Your task to perform on an android device: Check out the new nike air max 2020. Image 0: 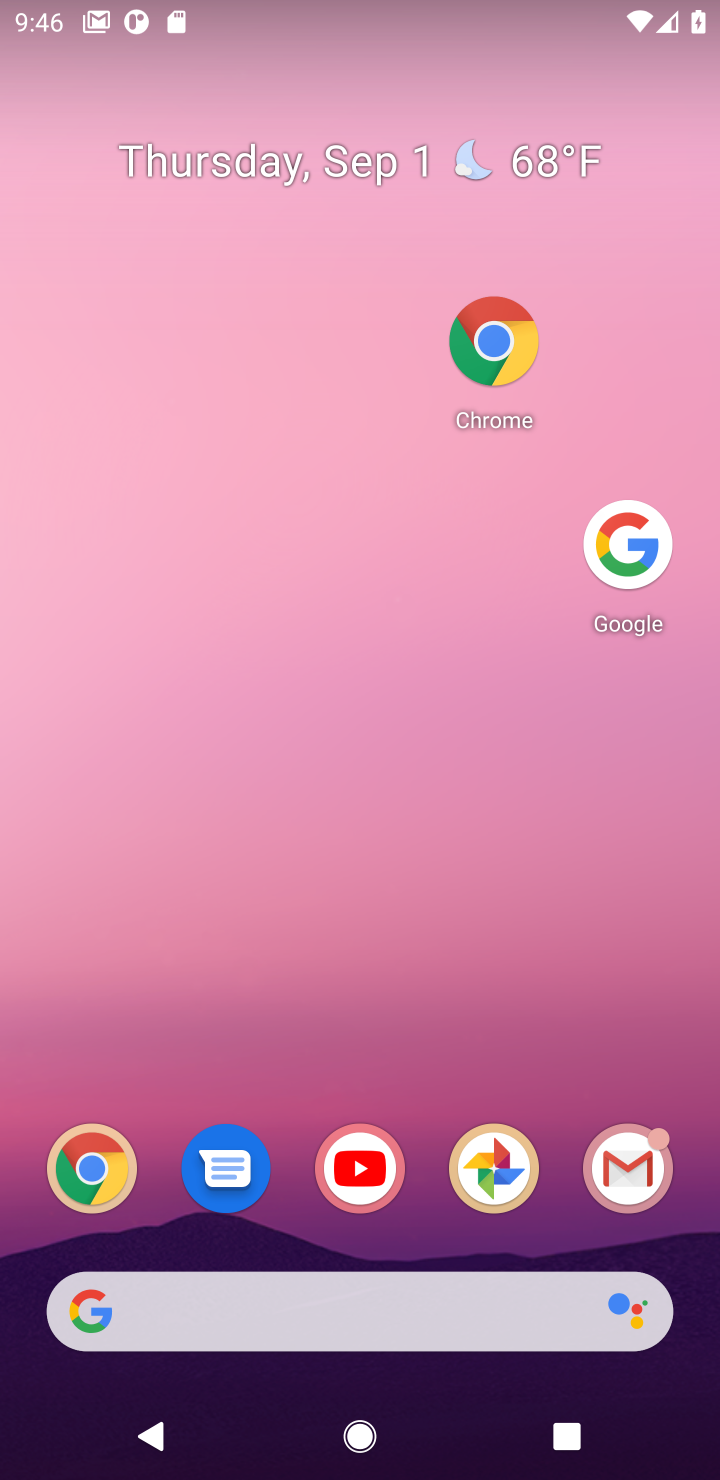
Step 0: drag from (409, 1245) to (407, 744)
Your task to perform on an android device: Check out the new nike air max 2020. Image 1: 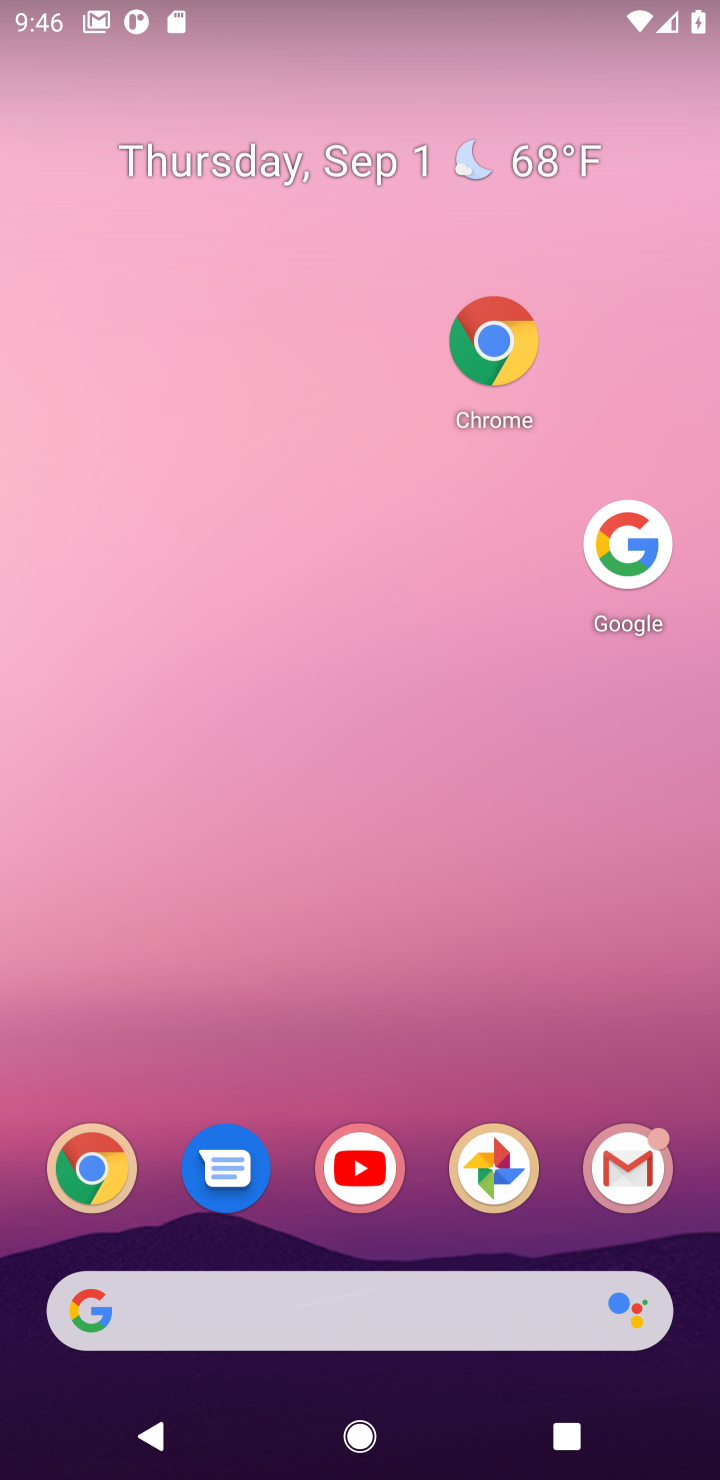
Step 1: click (612, 520)
Your task to perform on an android device: Check out the new nike air max 2020. Image 2: 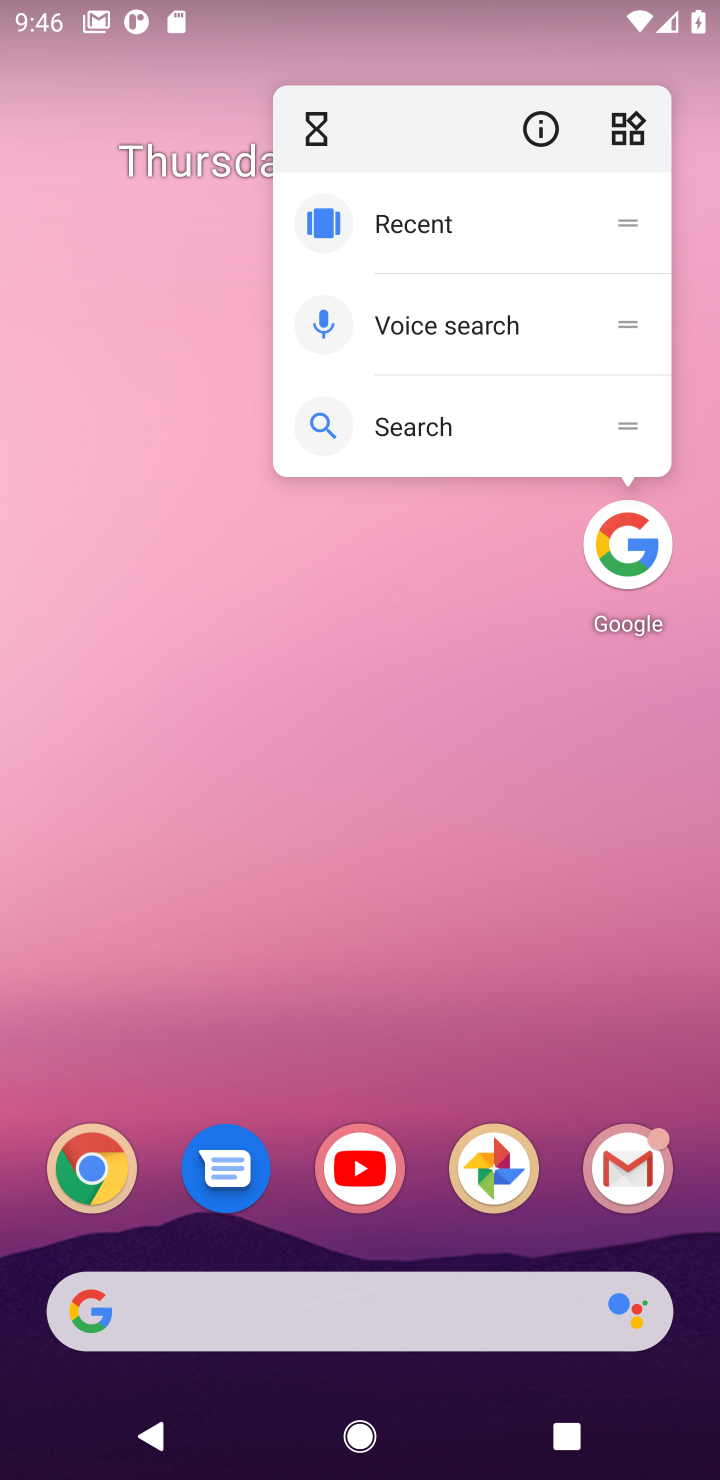
Step 2: click (626, 515)
Your task to perform on an android device: Check out the new nike air max 2020. Image 3: 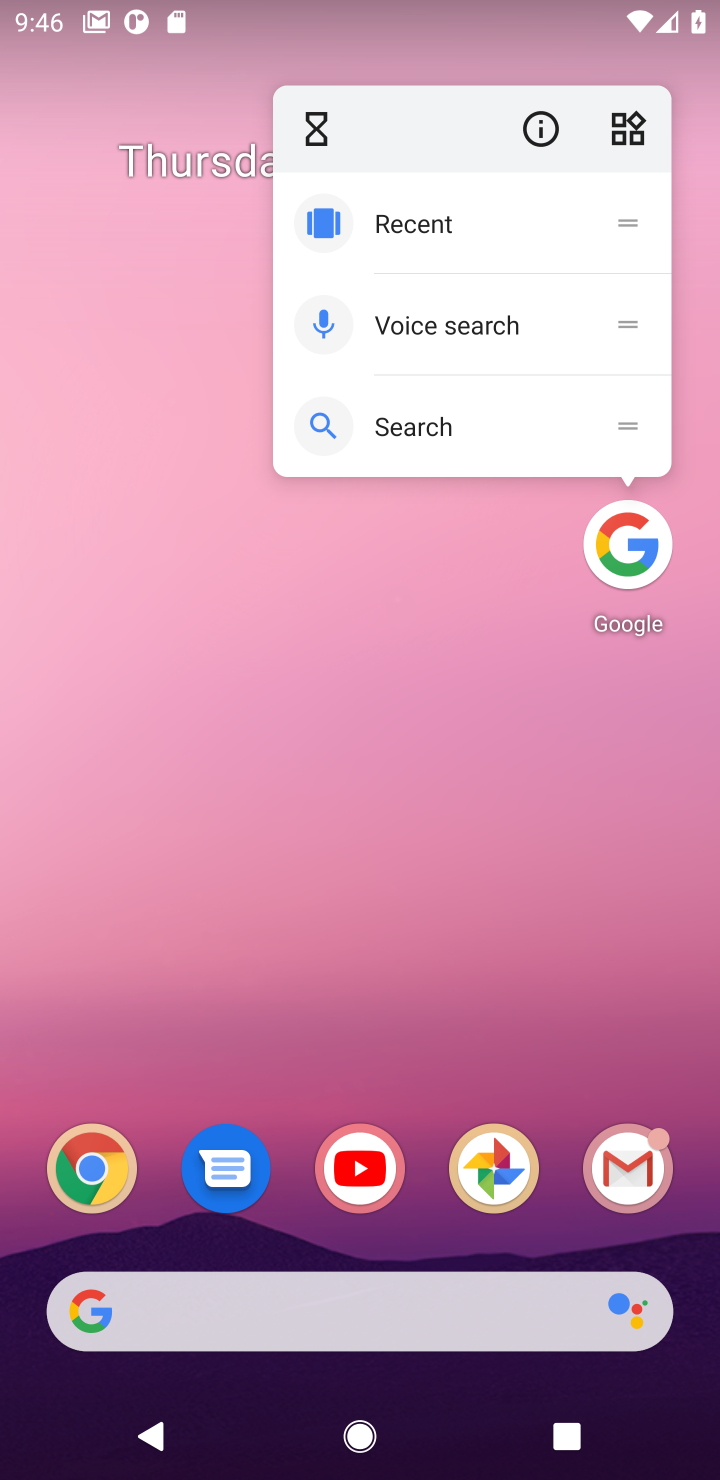
Step 3: click (626, 540)
Your task to perform on an android device: Check out the new nike air max 2020. Image 4: 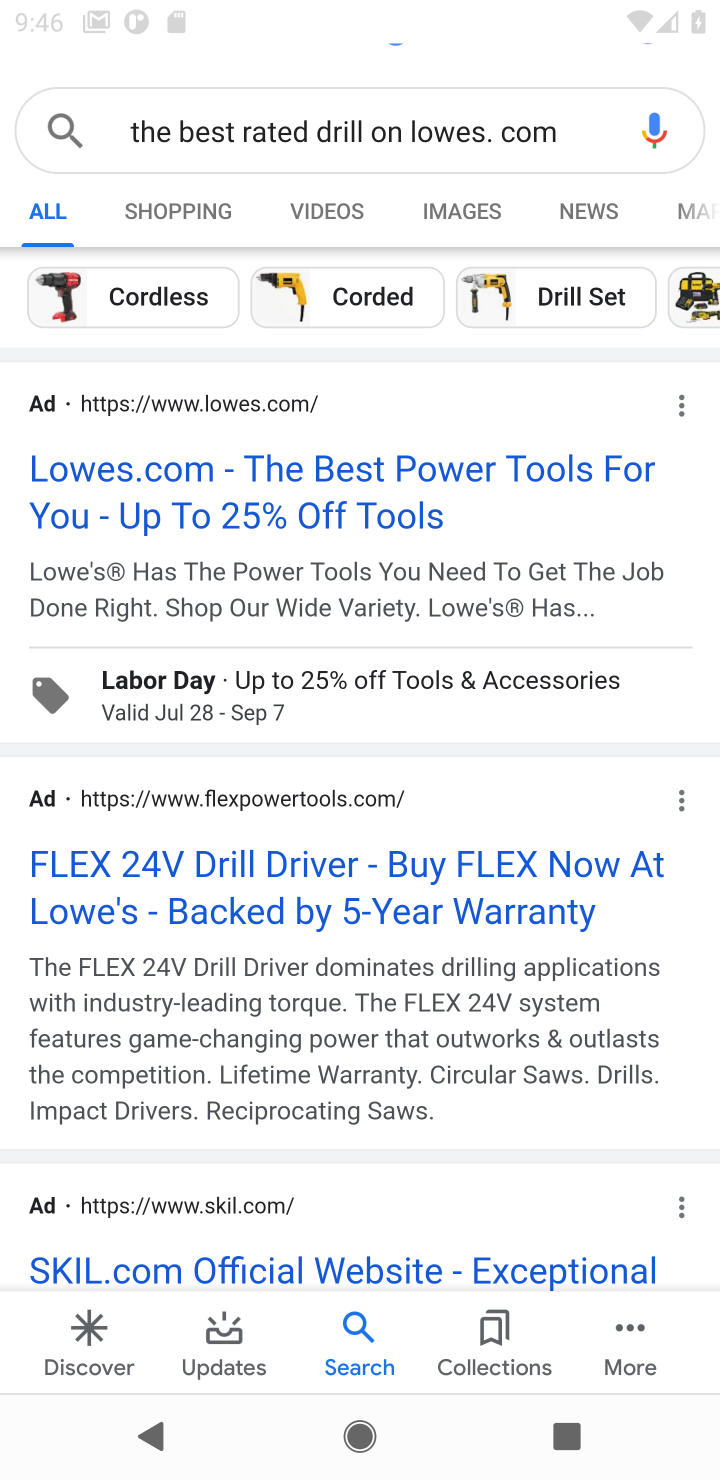
Step 4: click (623, 560)
Your task to perform on an android device: Check out the new nike air max 2020. Image 5: 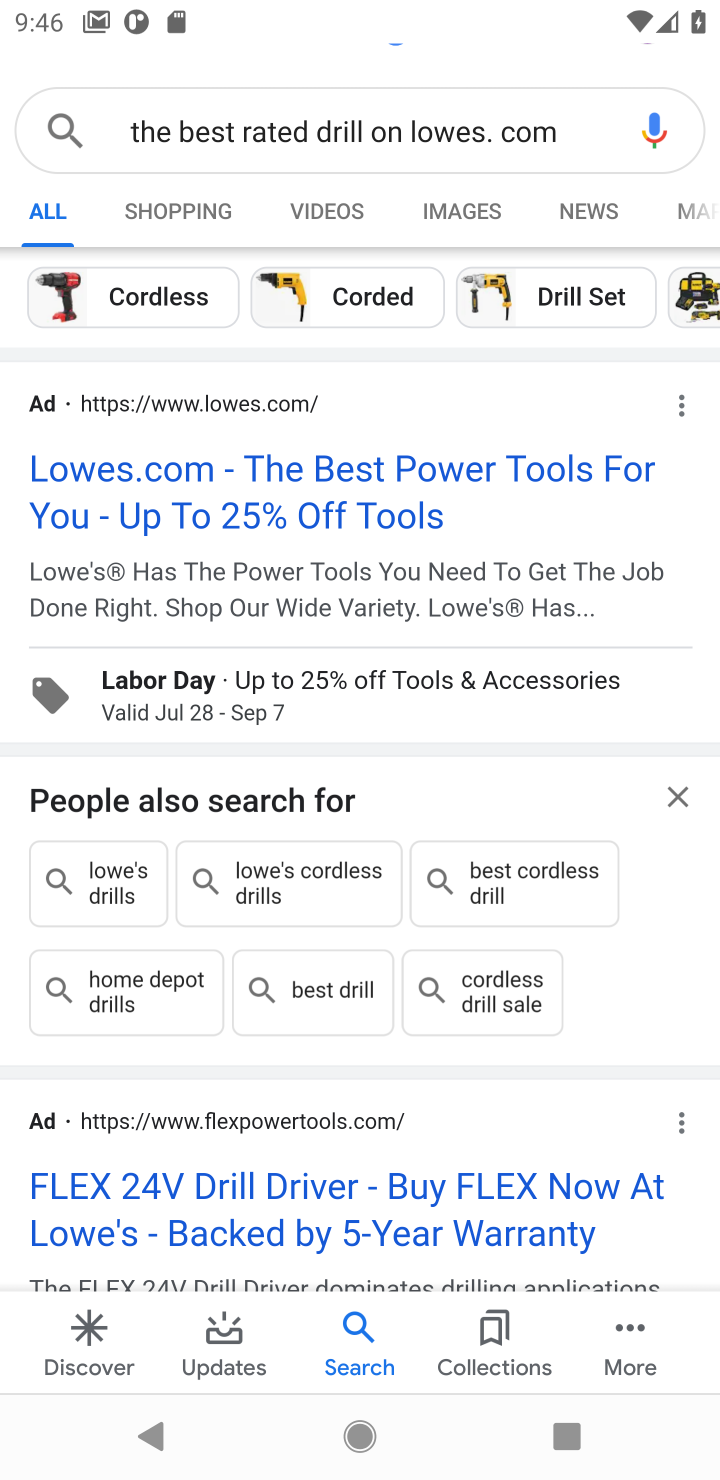
Step 5: click (581, 117)
Your task to perform on an android device: Check out the new nike air max 2020. Image 6: 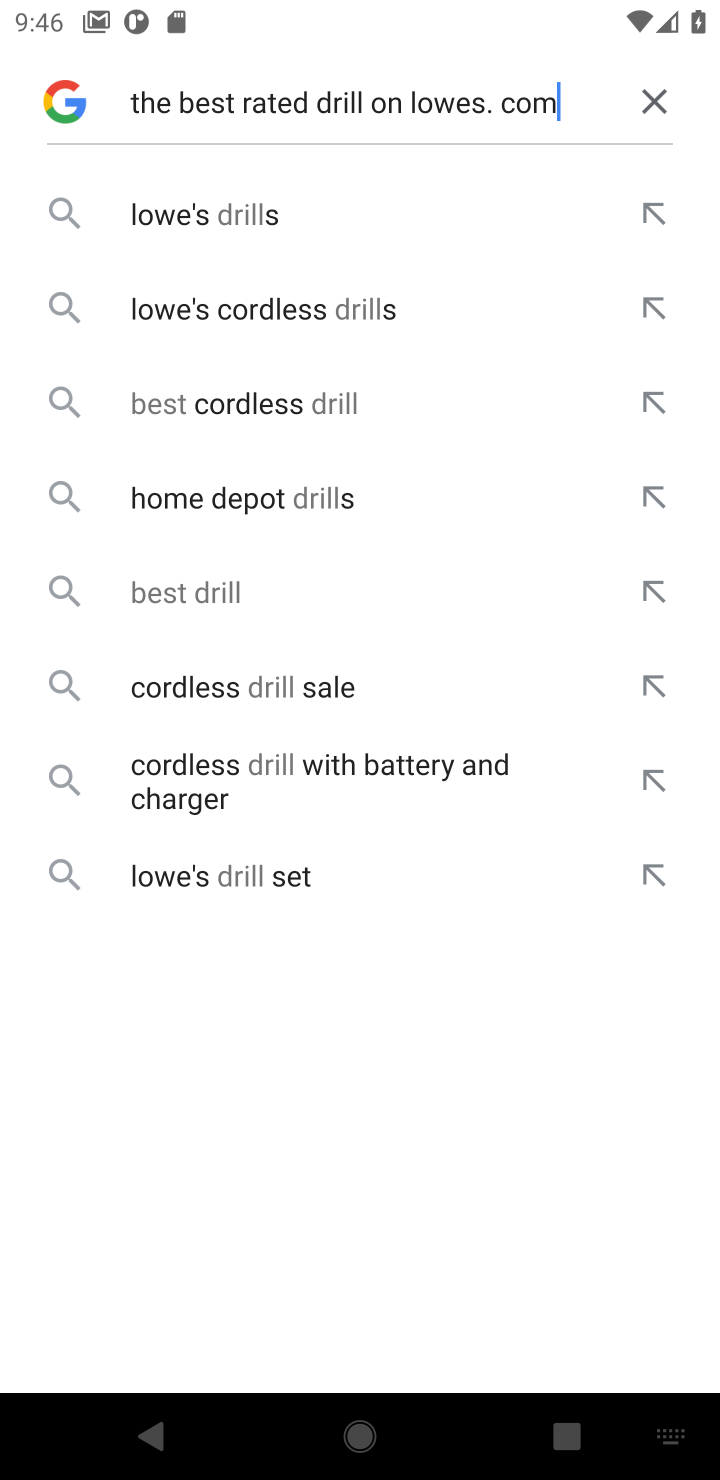
Step 6: click (653, 90)
Your task to perform on an android device: Check out the new nike air max 2020. Image 7: 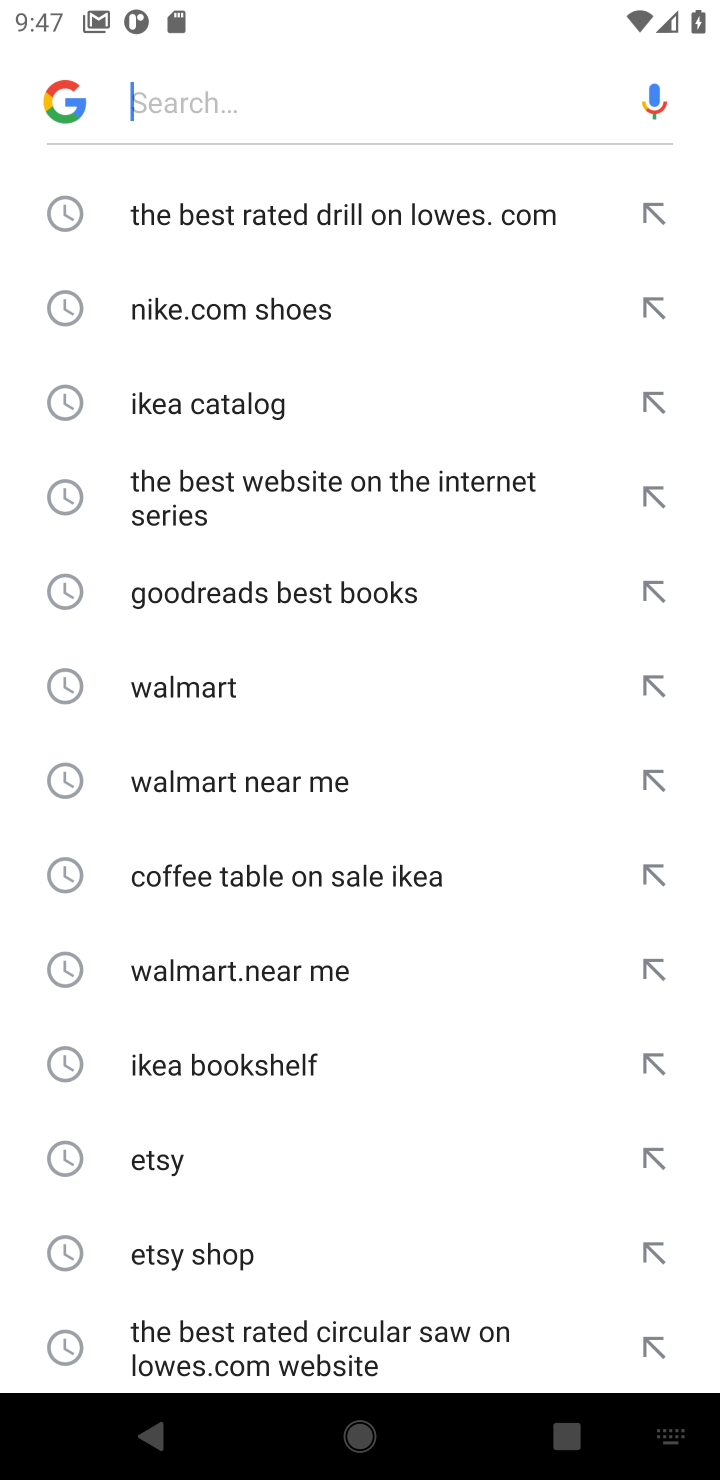
Step 7: click (338, 79)
Your task to perform on an android device: Check out the new nike air max 2020. Image 8: 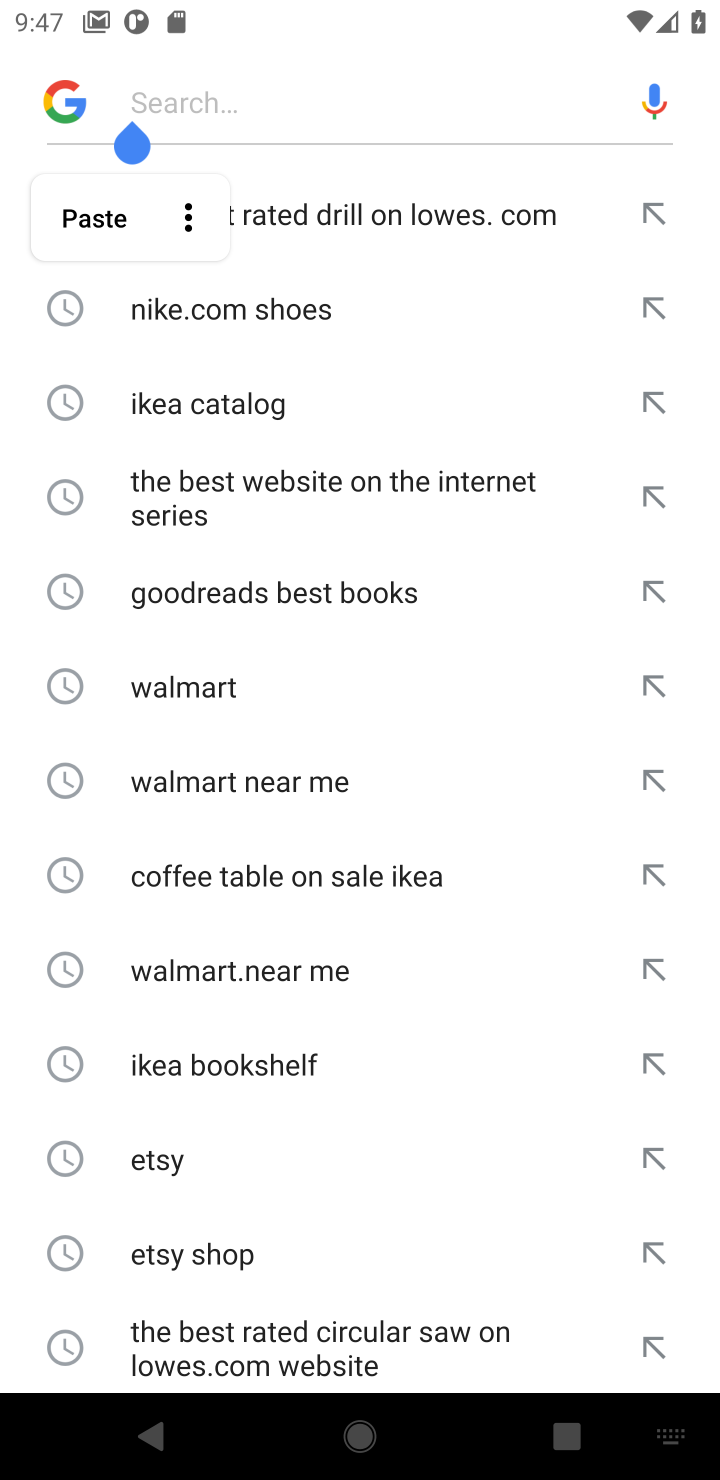
Step 8: type "ike air max 2020 "
Your task to perform on an android device: Check out the new nike air max 2020. Image 9: 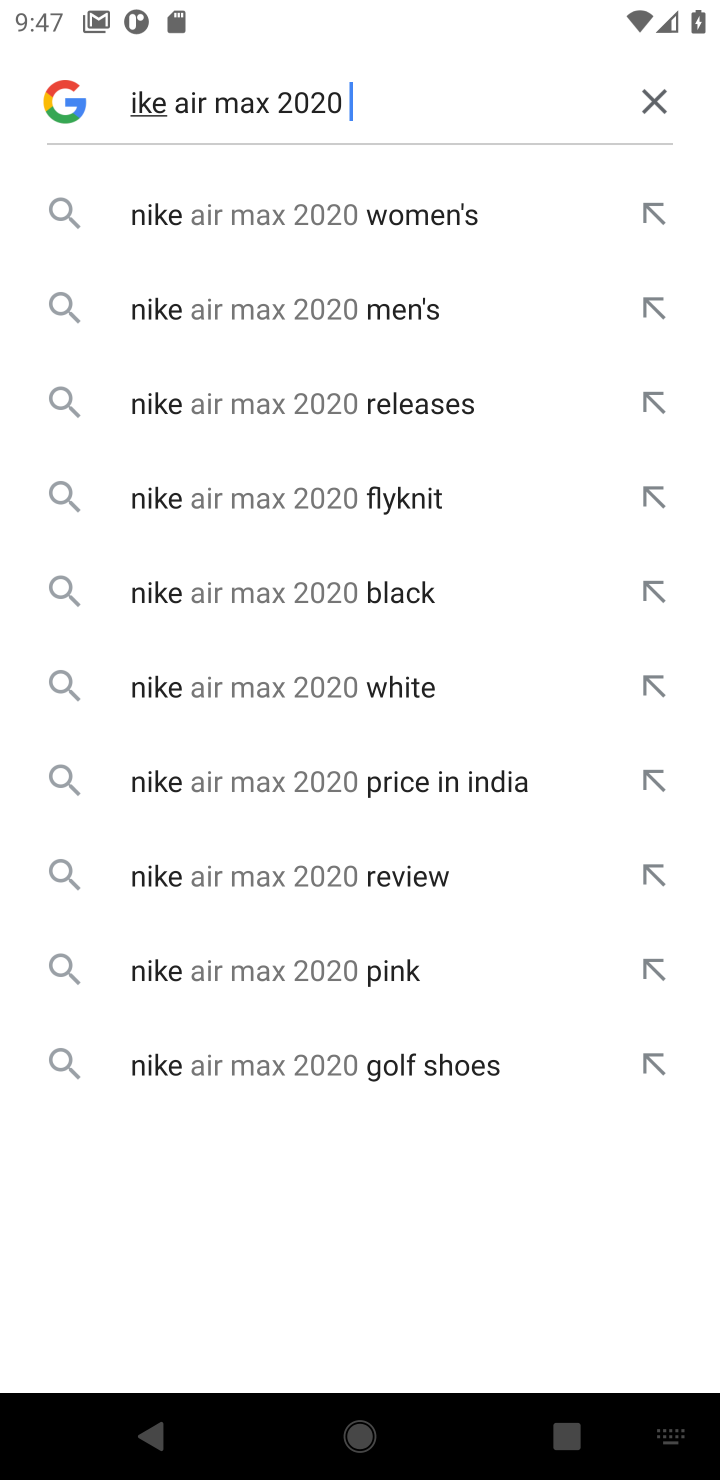
Step 9: click (325, 295)
Your task to perform on an android device: Check out the new nike air max 2020. Image 10: 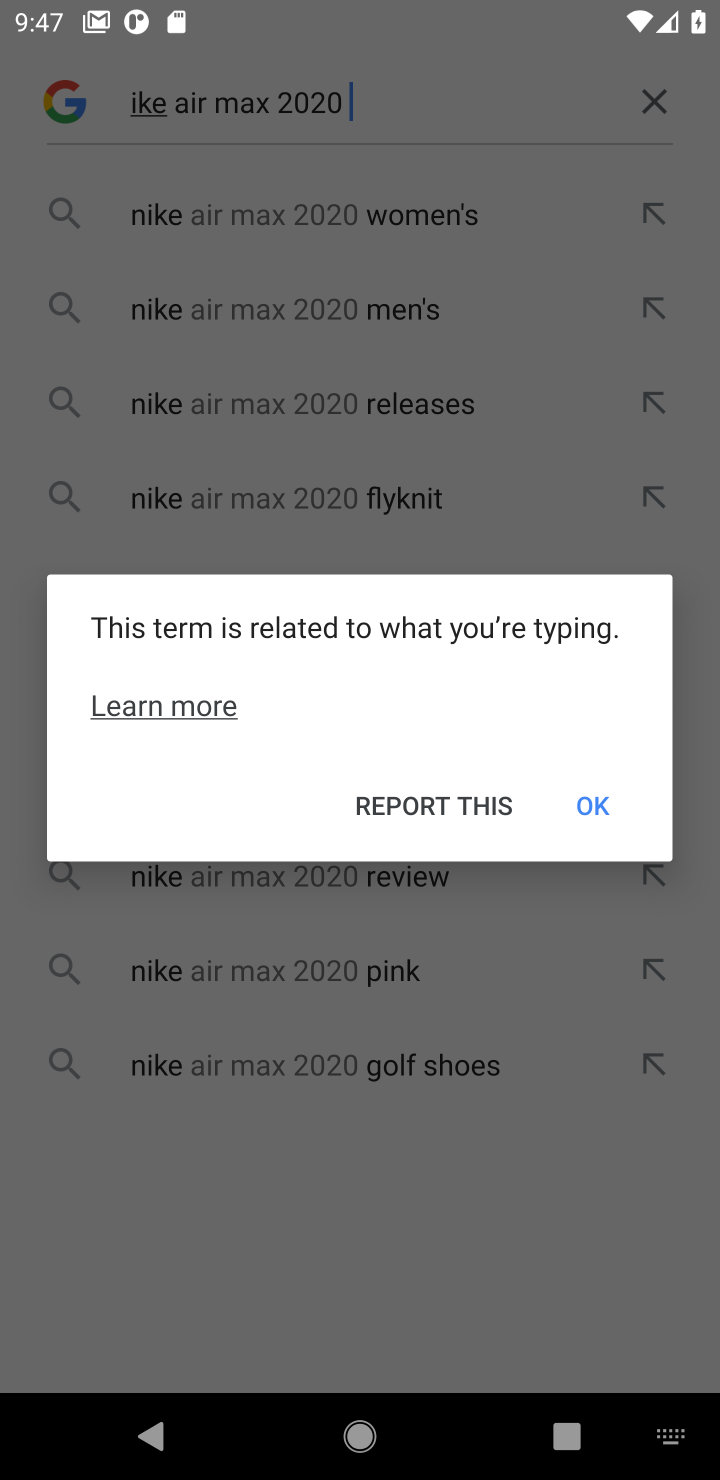
Step 10: click (580, 810)
Your task to perform on an android device: Check out the new nike air max 2020. Image 11: 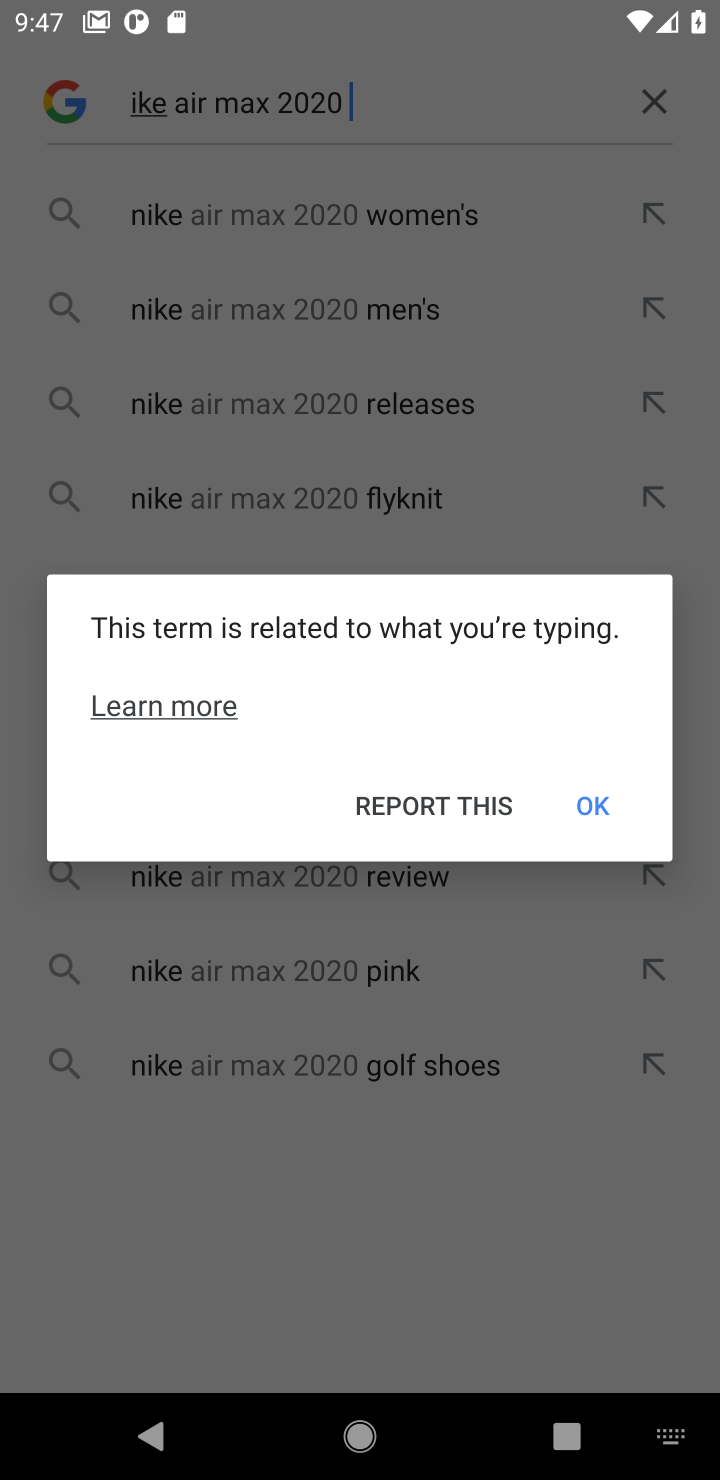
Step 11: click (342, 189)
Your task to perform on an android device: Check out the new nike air max 2020. Image 12: 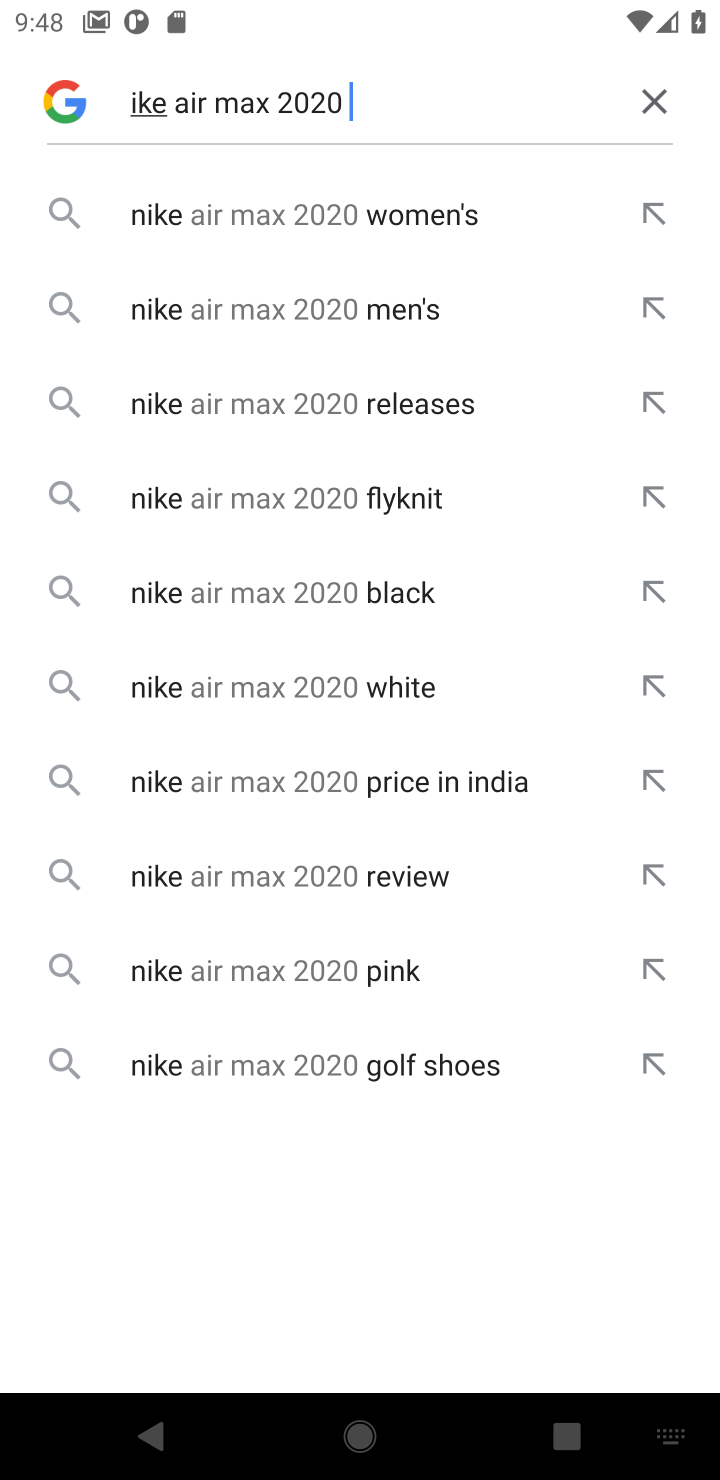
Step 12: click (342, 189)
Your task to perform on an android device: Check out the new nike air max 2020. Image 13: 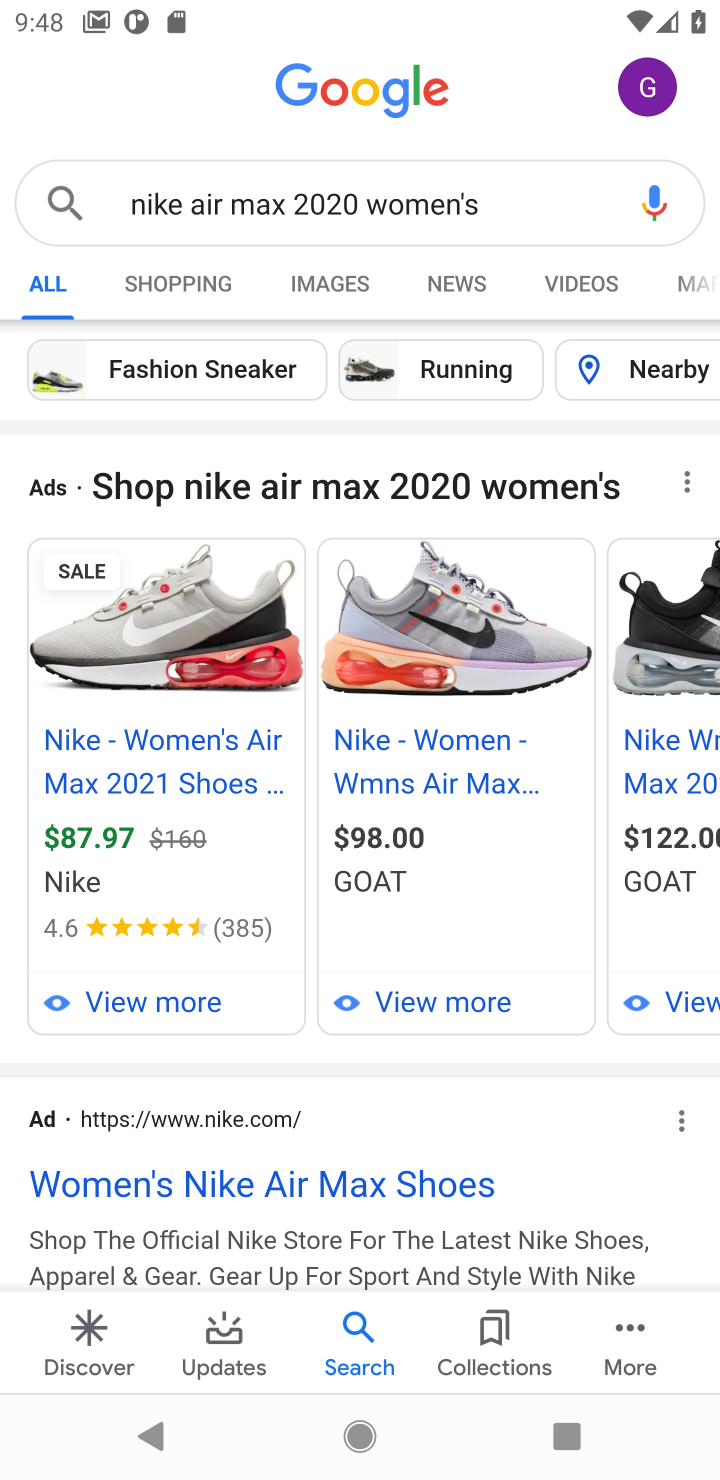
Step 13: drag from (301, 1175) to (576, 765)
Your task to perform on an android device: Check out the new nike air max 2020. Image 14: 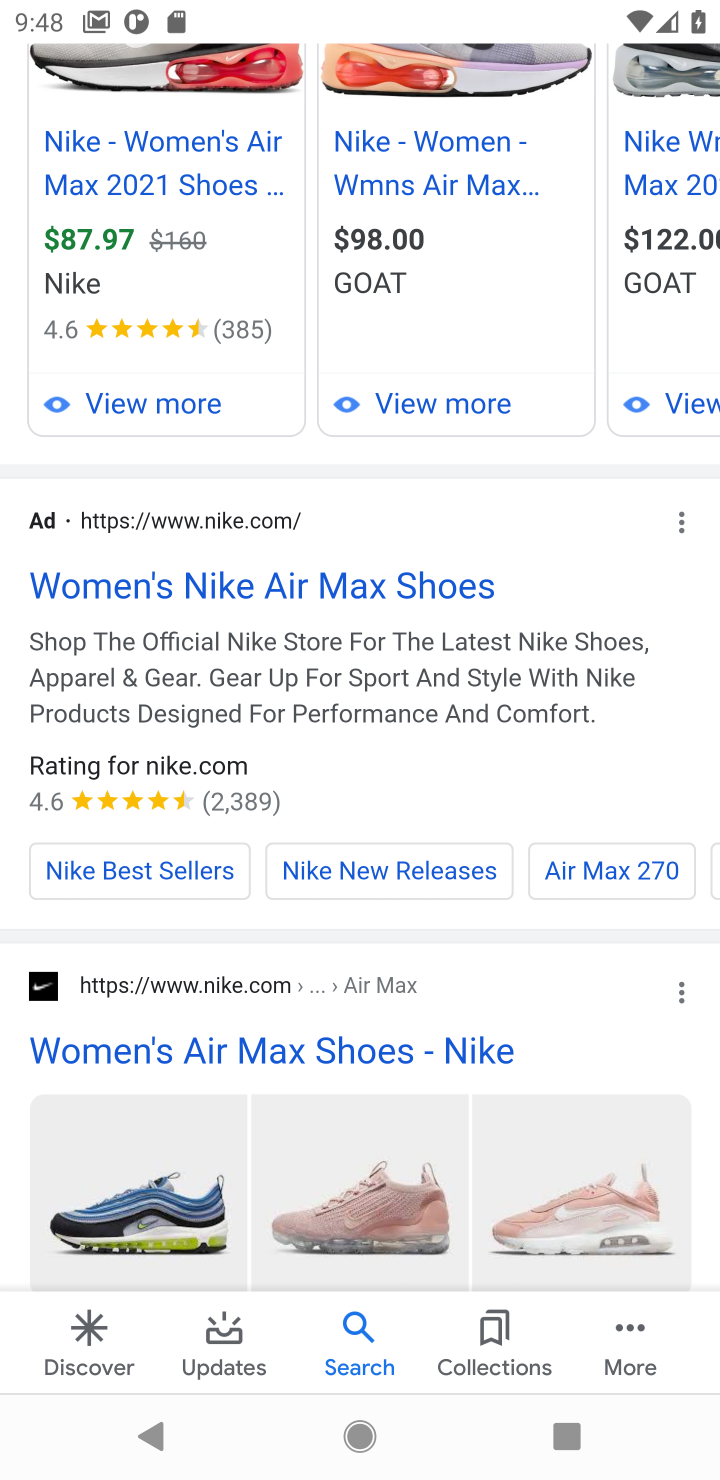
Step 14: drag from (214, 1250) to (370, 365)
Your task to perform on an android device: Check out the new nike air max 2020. Image 15: 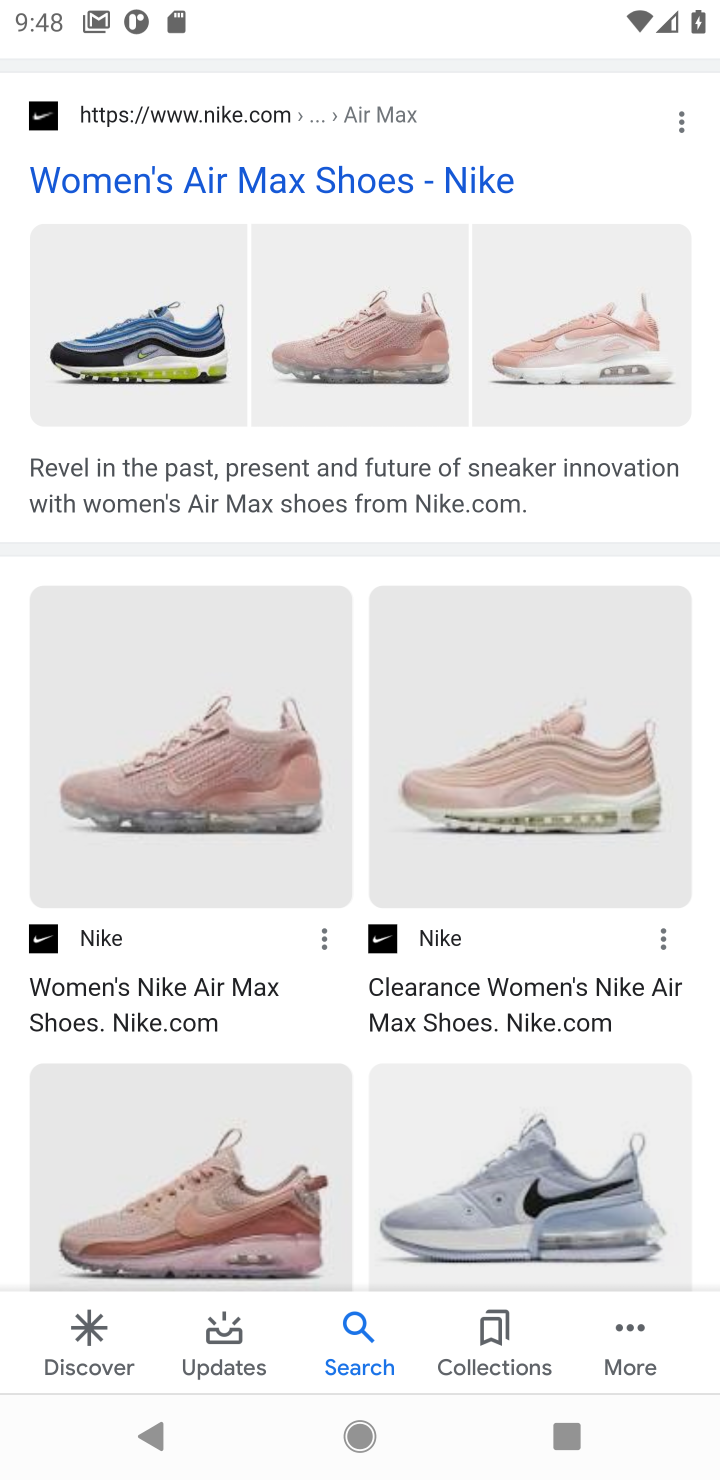
Step 15: drag from (513, 184) to (473, 1273)
Your task to perform on an android device: Check out the new nike air max 2020. Image 16: 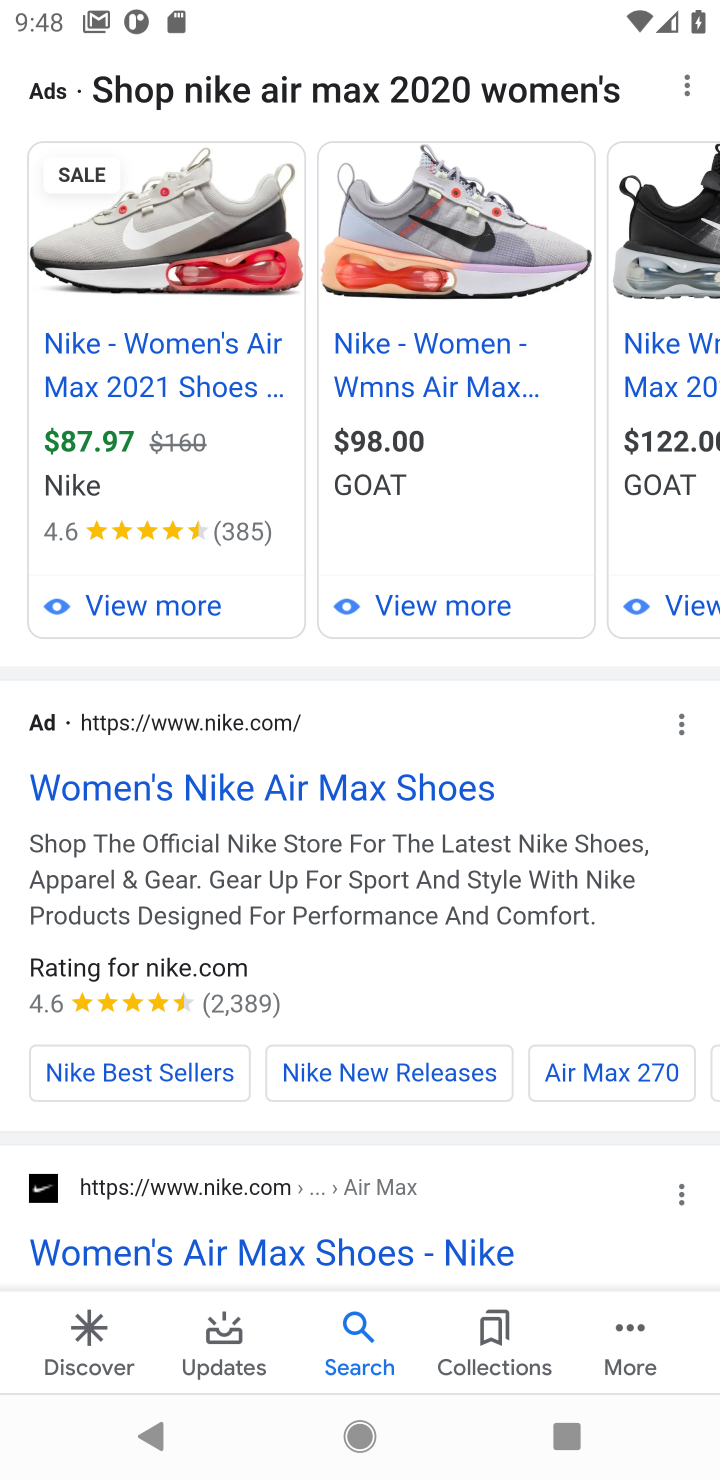
Step 16: drag from (379, 367) to (368, 1270)
Your task to perform on an android device: Check out the new nike air max 2020. Image 17: 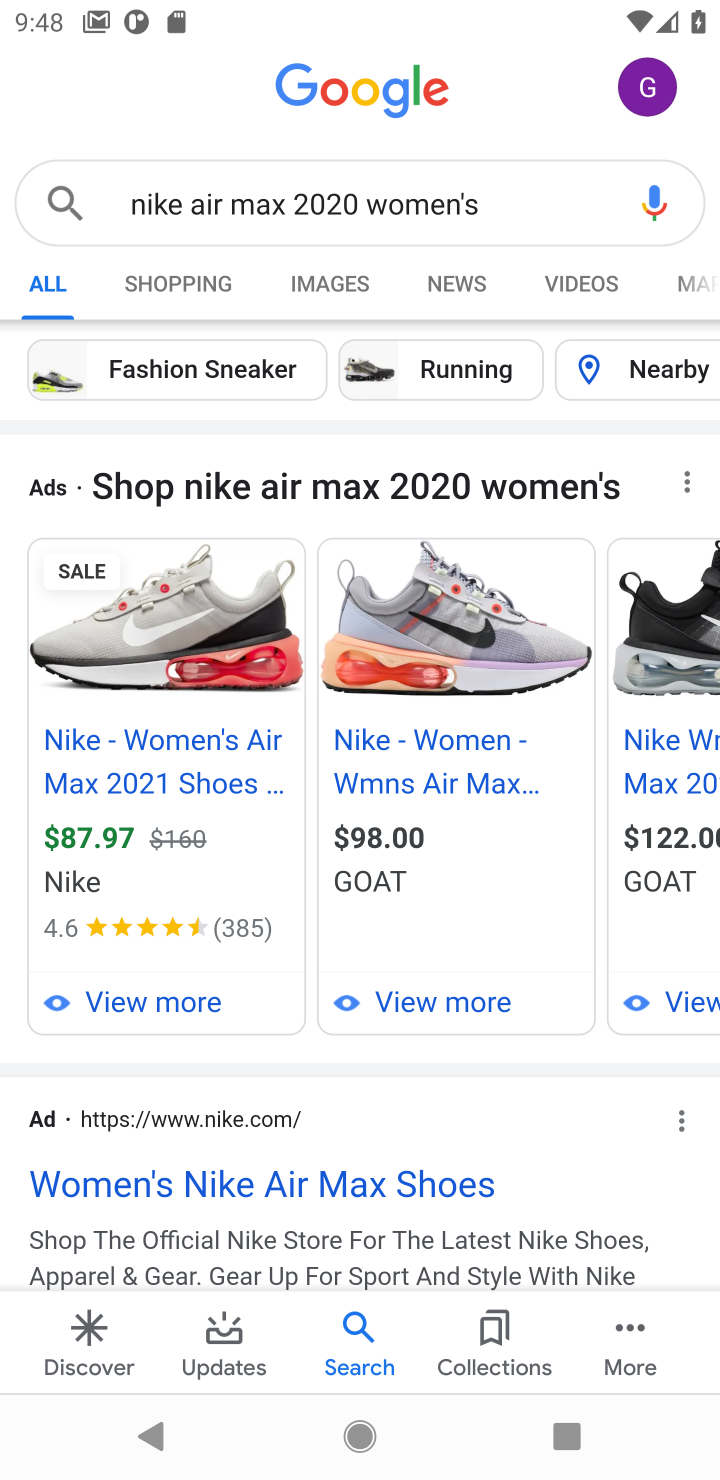
Step 17: click (396, 195)
Your task to perform on an android device: Check out the new nike air max 2020. Image 18: 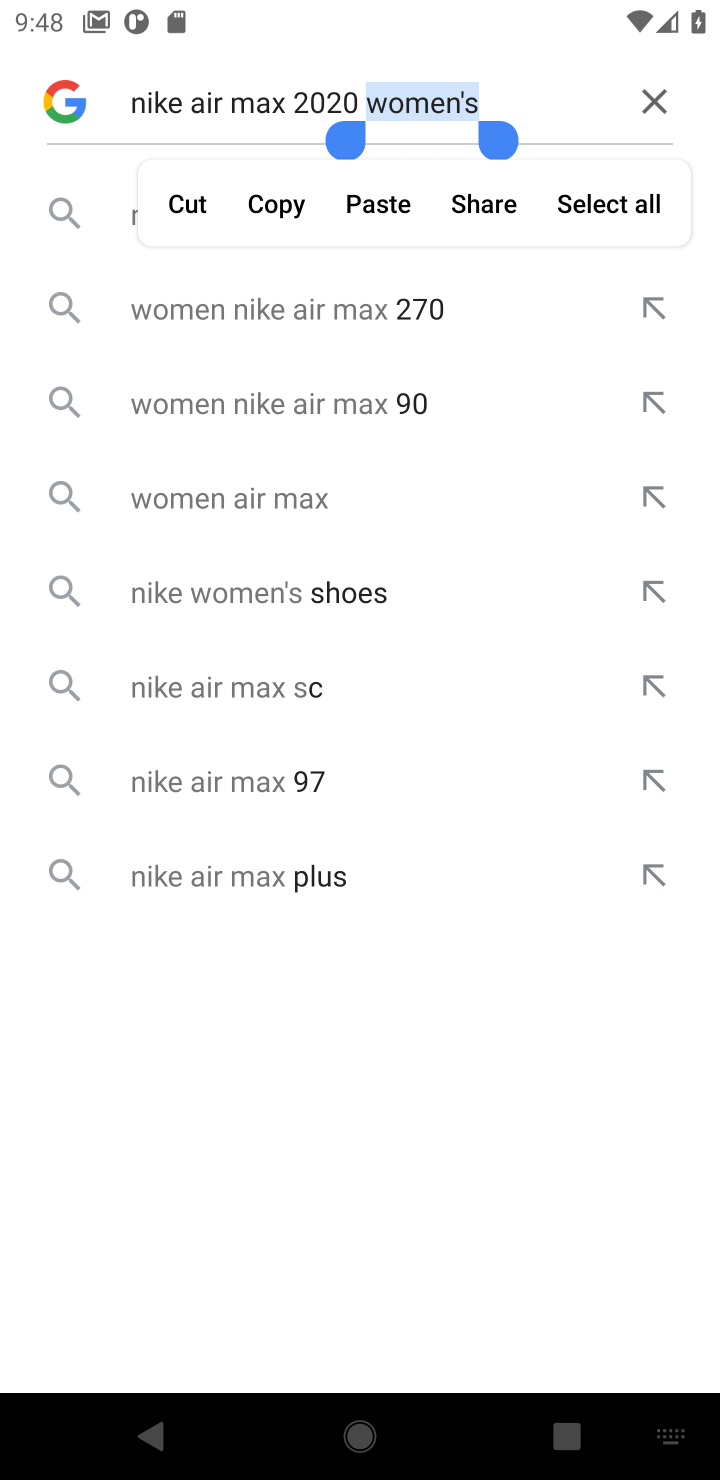
Step 18: click (196, 200)
Your task to perform on an android device: Check out the new nike air max 2020. Image 19: 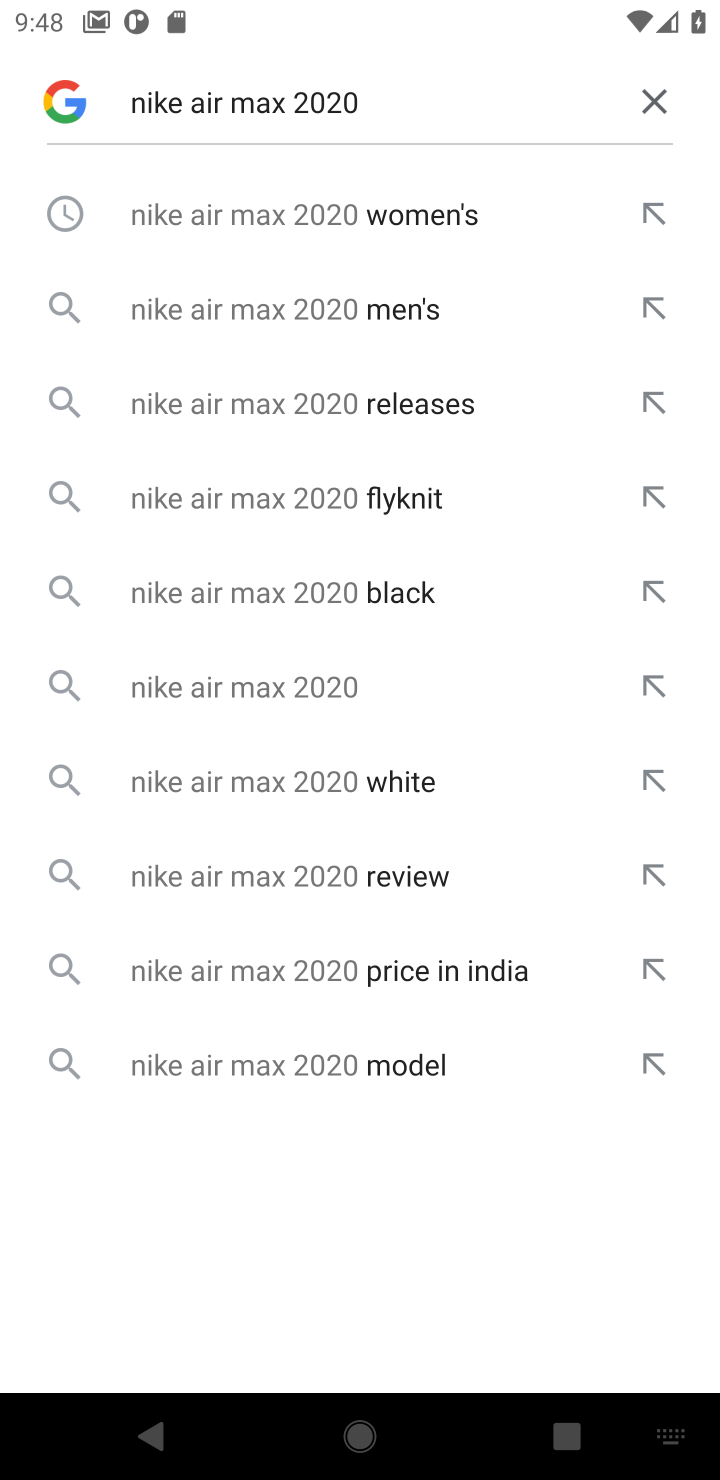
Step 19: click (355, 398)
Your task to perform on an android device: Check out the new nike air max 2020. Image 20: 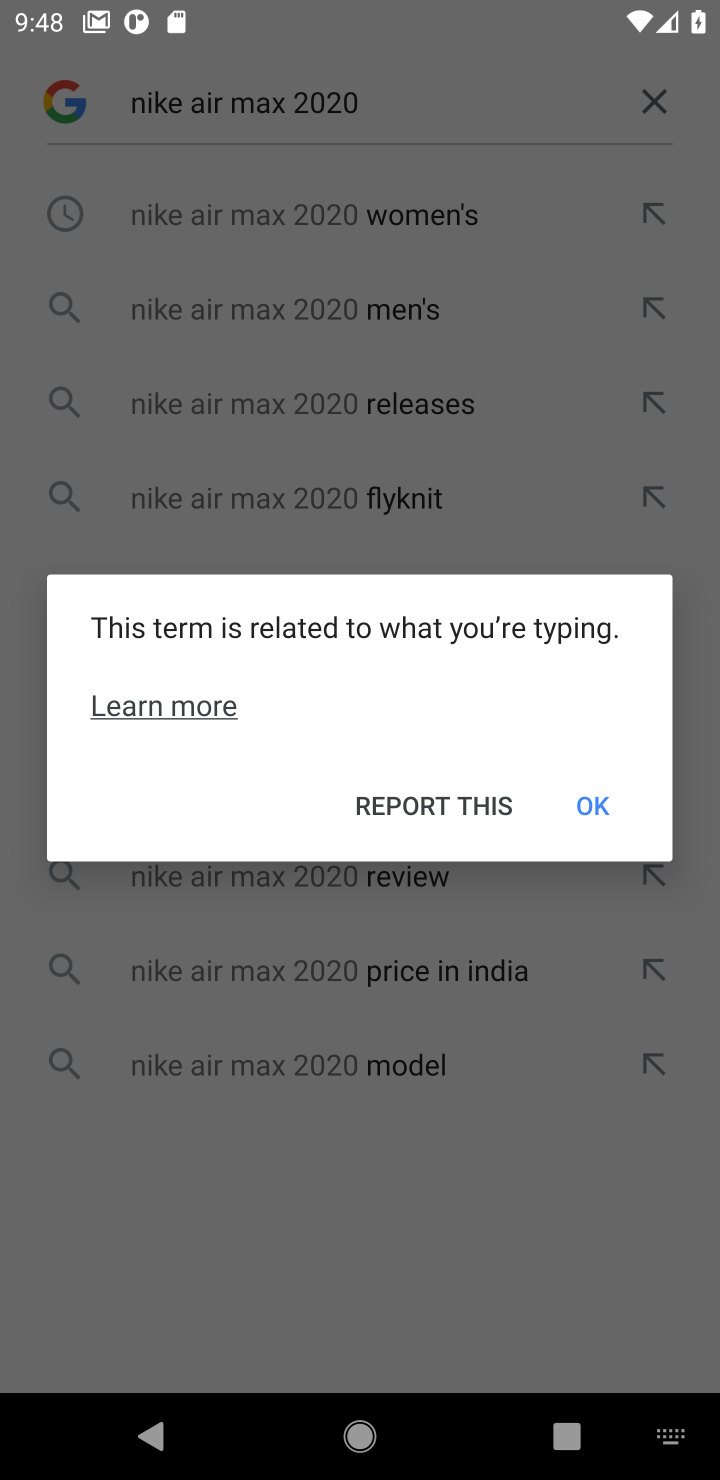
Step 20: click (581, 793)
Your task to perform on an android device: Check out the new nike air max 2020. Image 21: 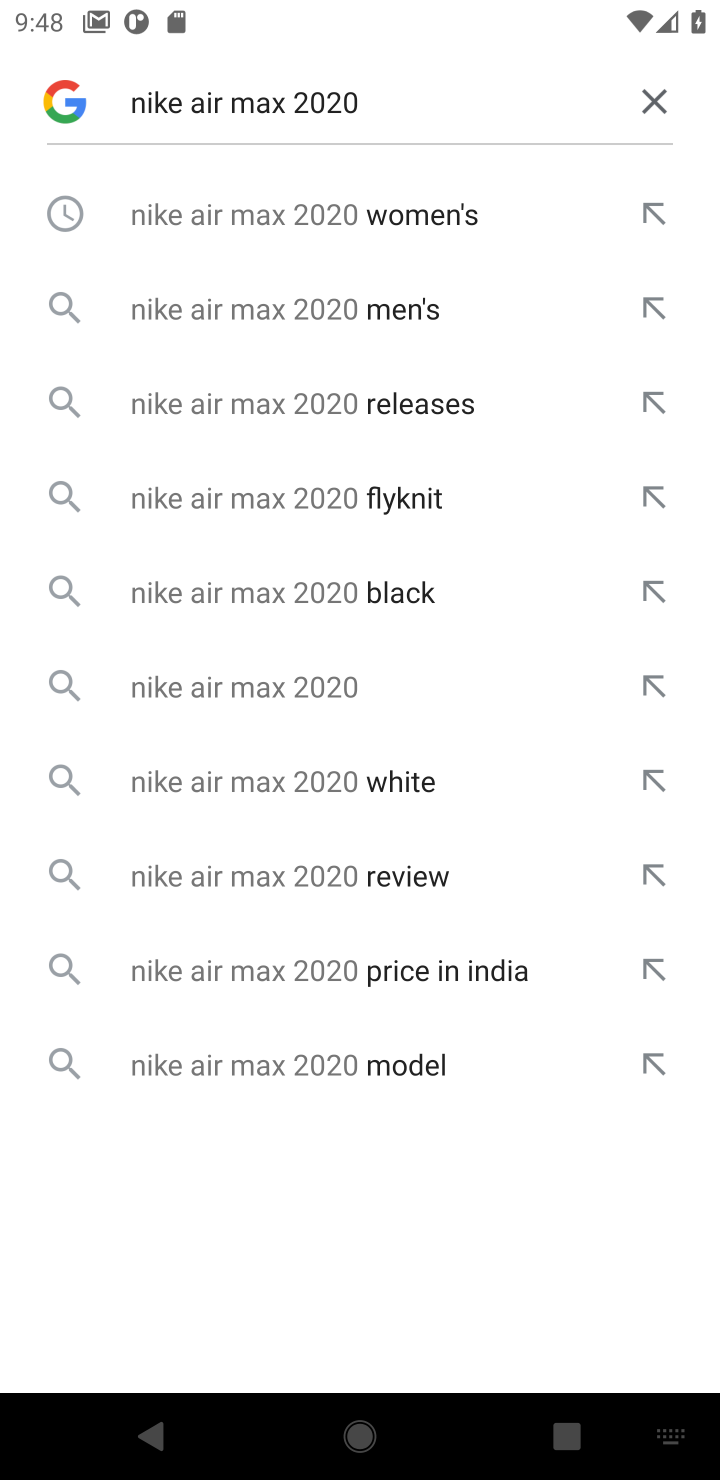
Step 21: click (105, 99)
Your task to perform on an android device: Check out the new nike air max 2020. Image 22: 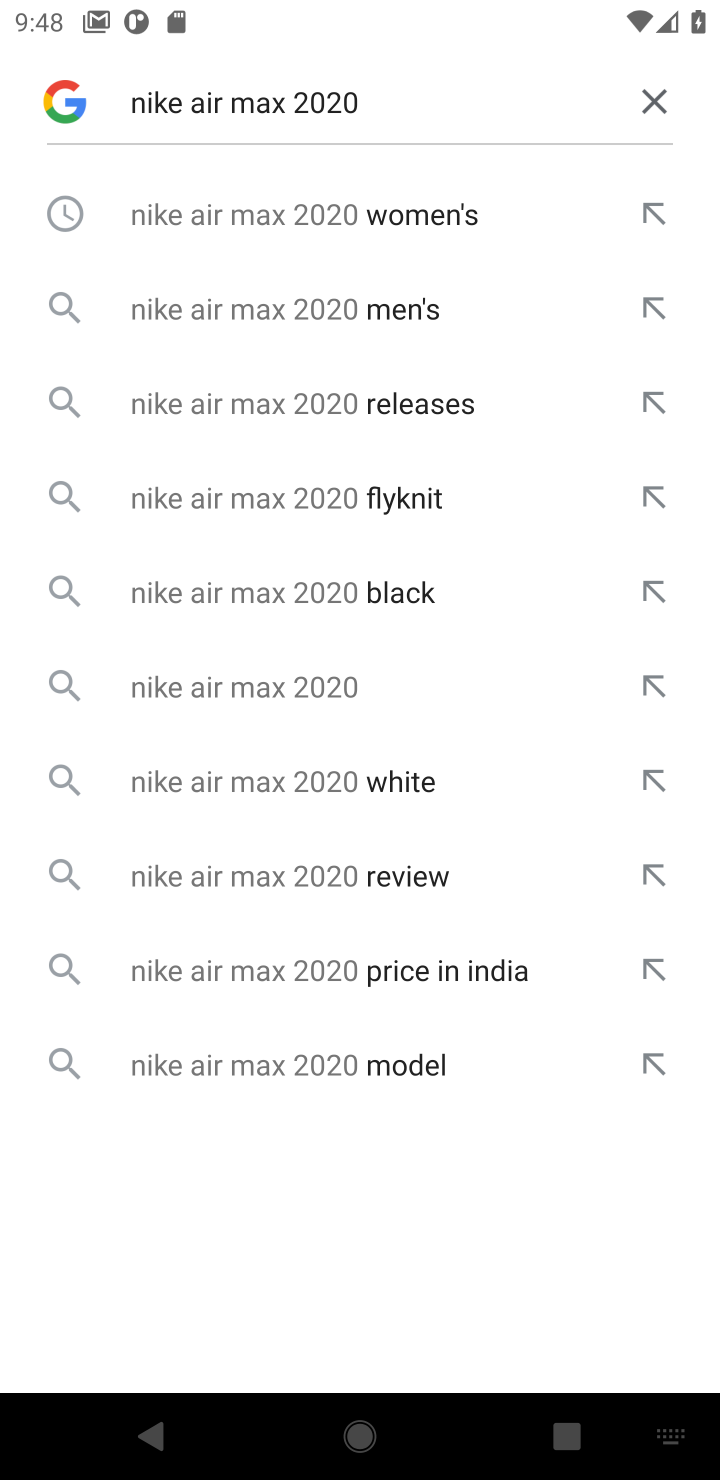
Step 22: click (120, 93)
Your task to perform on an android device: Check out the new nike air max 2020. Image 23: 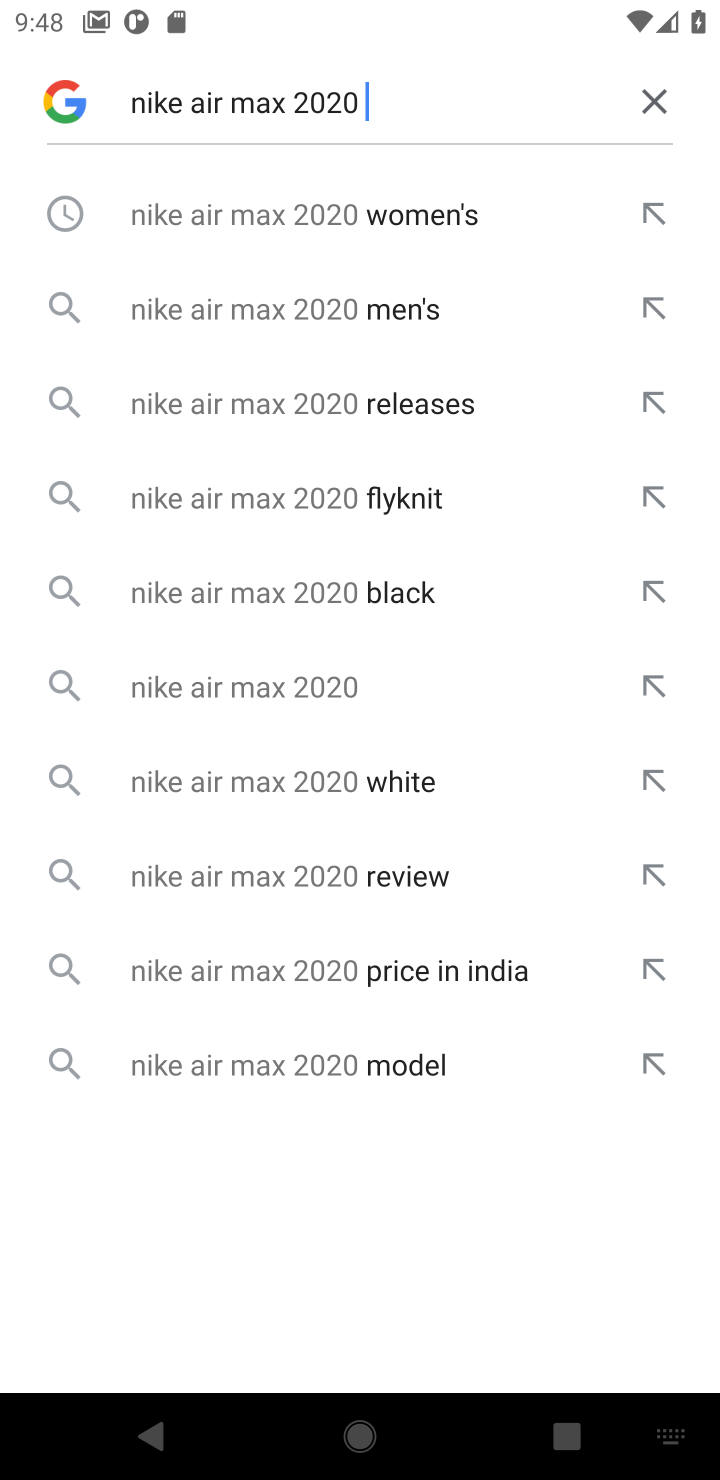
Step 23: click (346, 107)
Your task to perform on an android device: Check out the new nike air max 2020. Image 24: 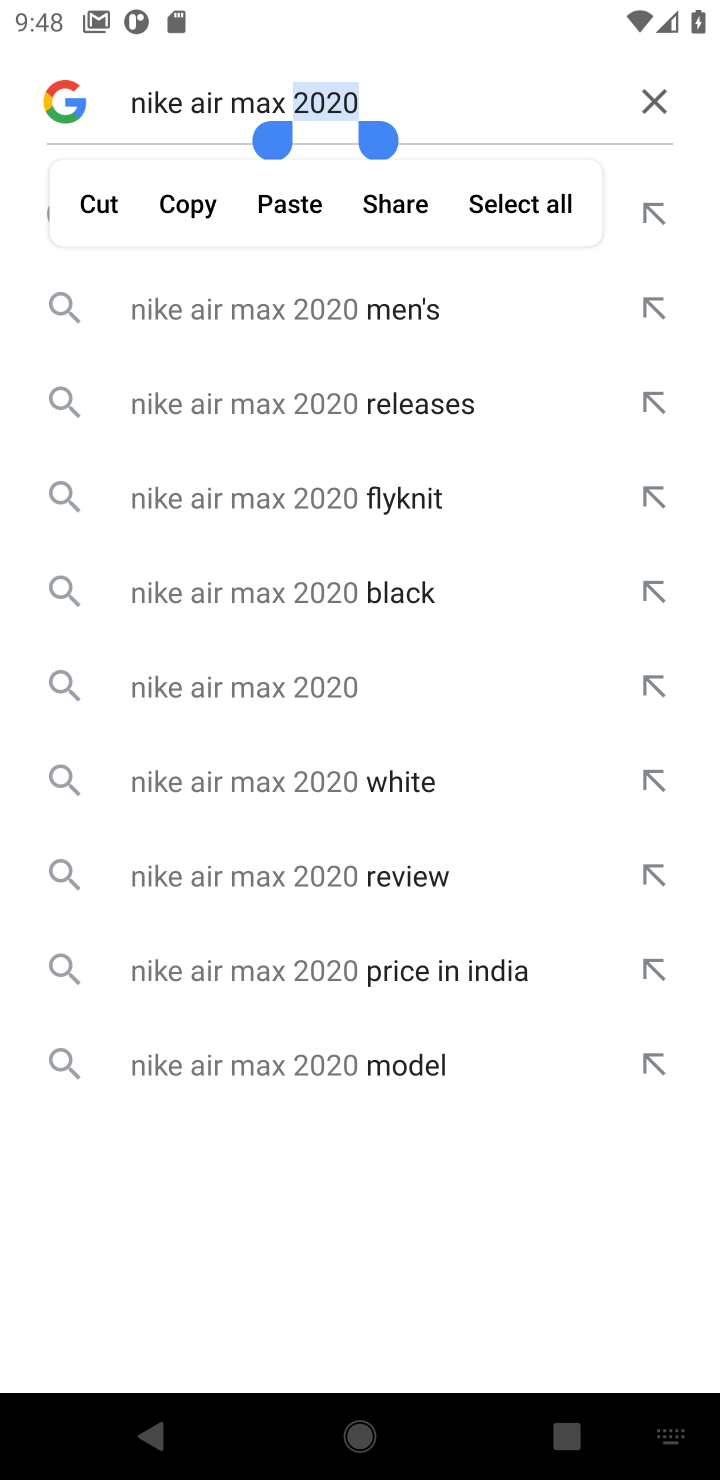
Step 24: drag from (269, 135) to (73, 139)
Your task to perform on an android device: Check out the new nike air max 2020. Image 25: 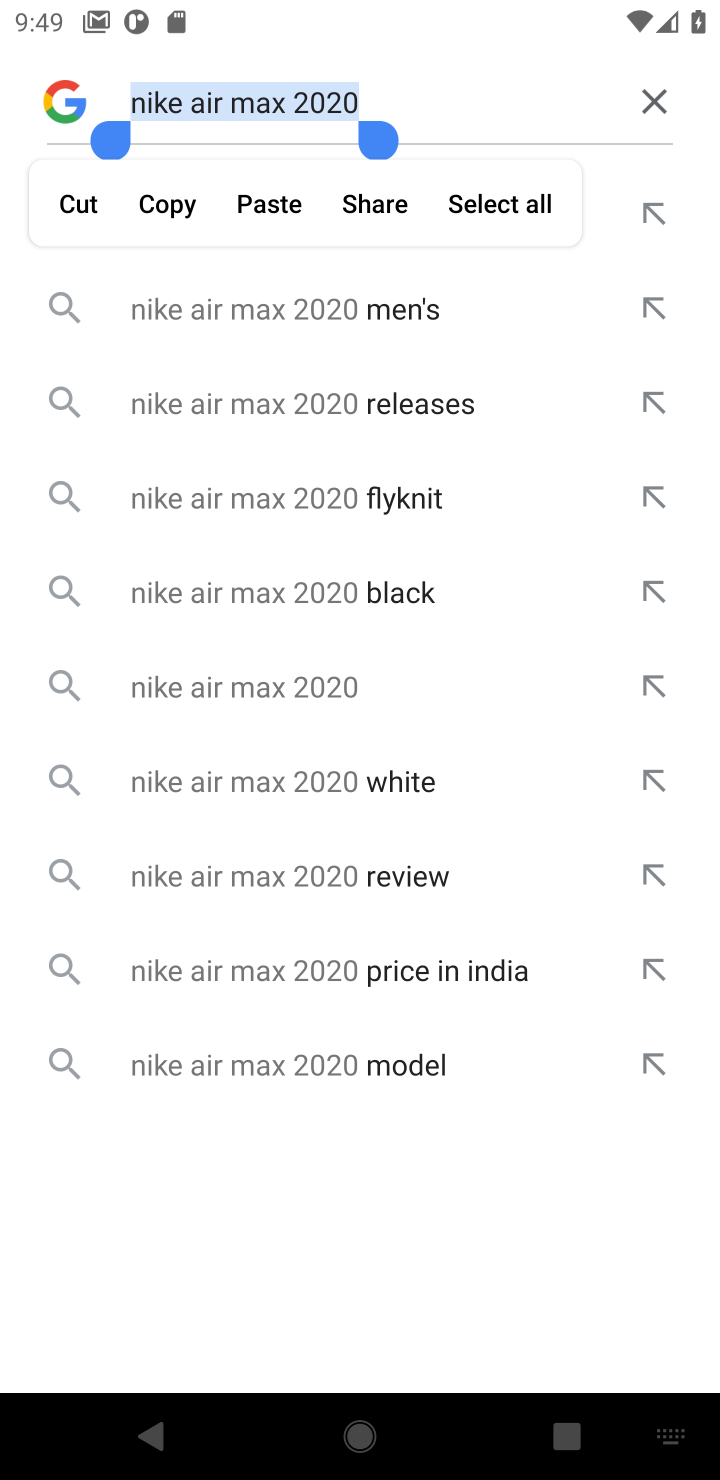
Step 25: click (80, 201)
Your task to perform on an android device: Check out the new nike air max 2020. Image 26: 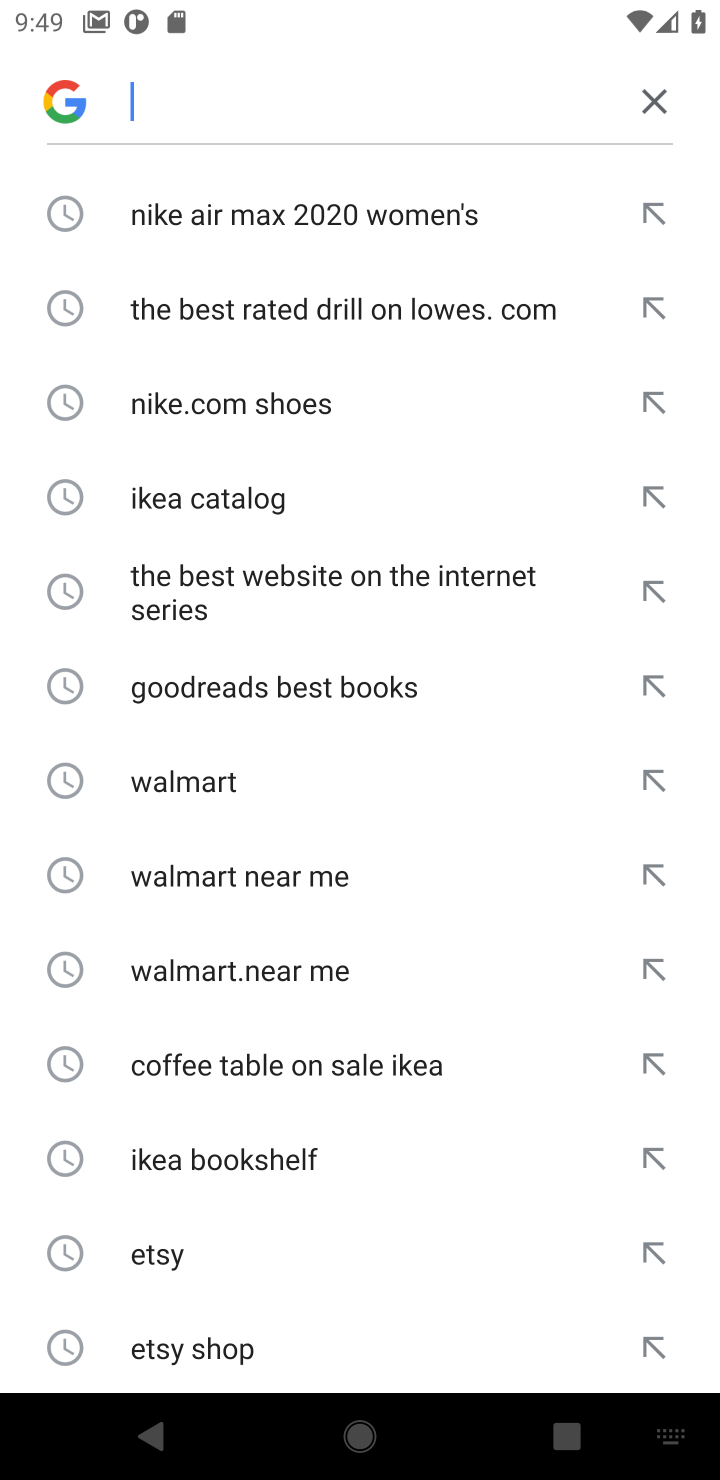
Step 26: click (320, 99)
Your task to perform on an android device: Check out the new nike air max 2020. Image 27: 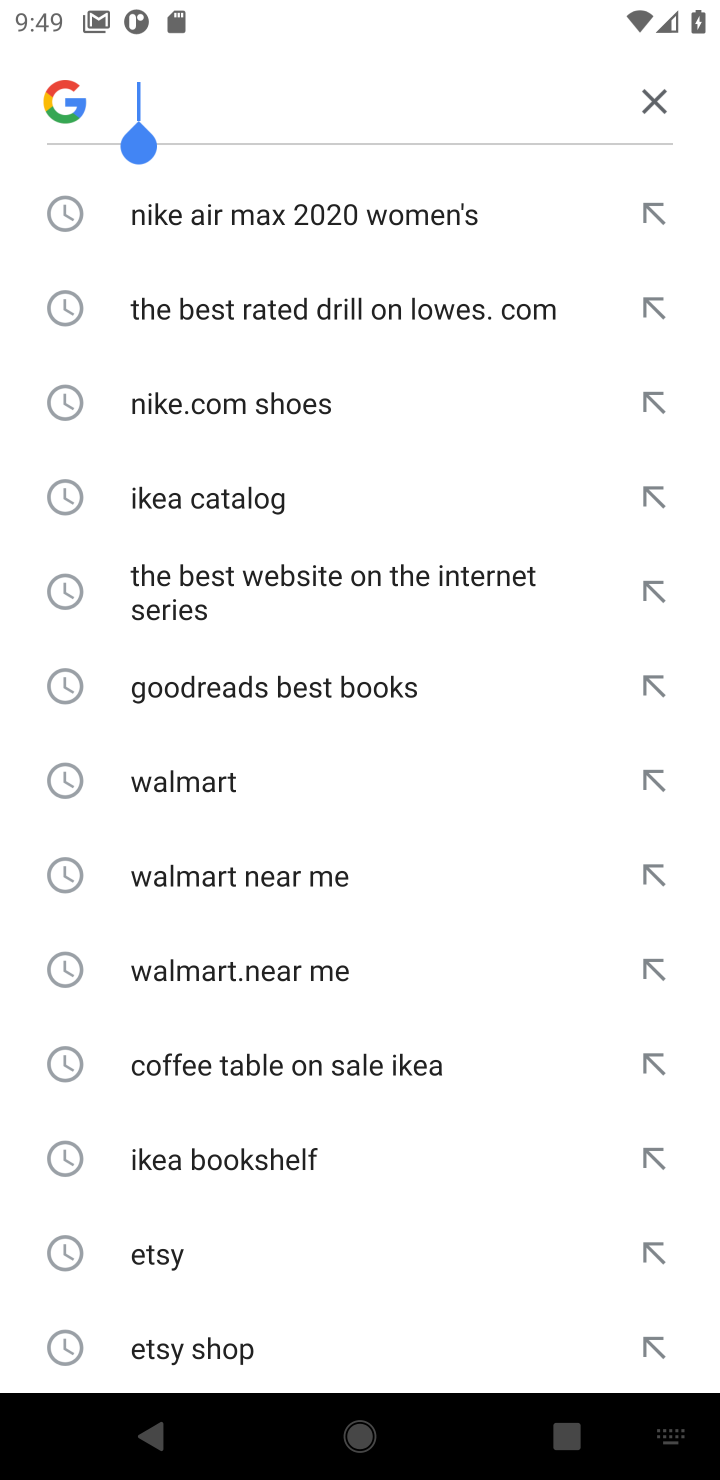
Step 27: type "new nike air max 2020 "
Your task to perform on an android device: Check out the new nike air max 2020. Image 28: 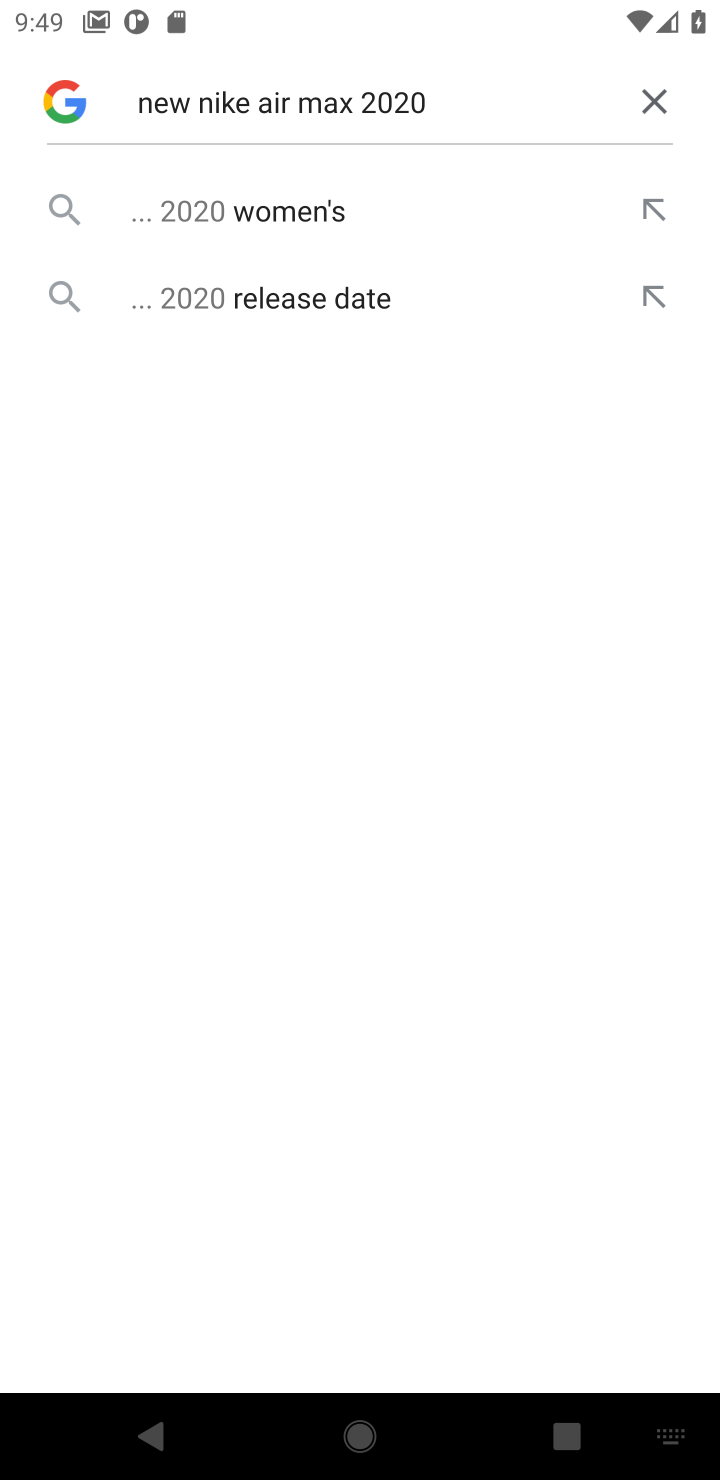
Step 28: click (197, 312)
Your task to perform on an android device: Check out the new nike air max 2020. Image 29: 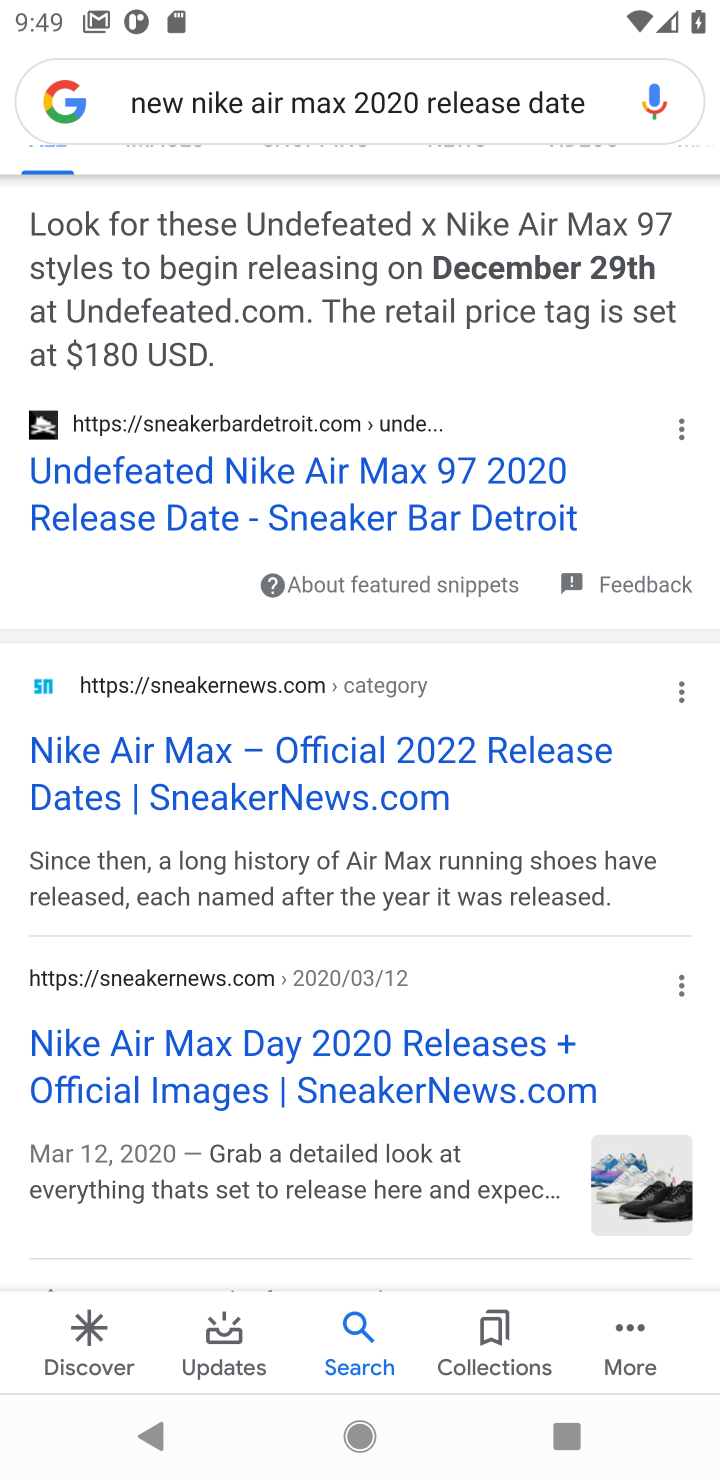
Step 29: drag from (310, 486) to (310, 802)
Your task to perform on an android device: Check out the new nike air max 2020. Image 30: 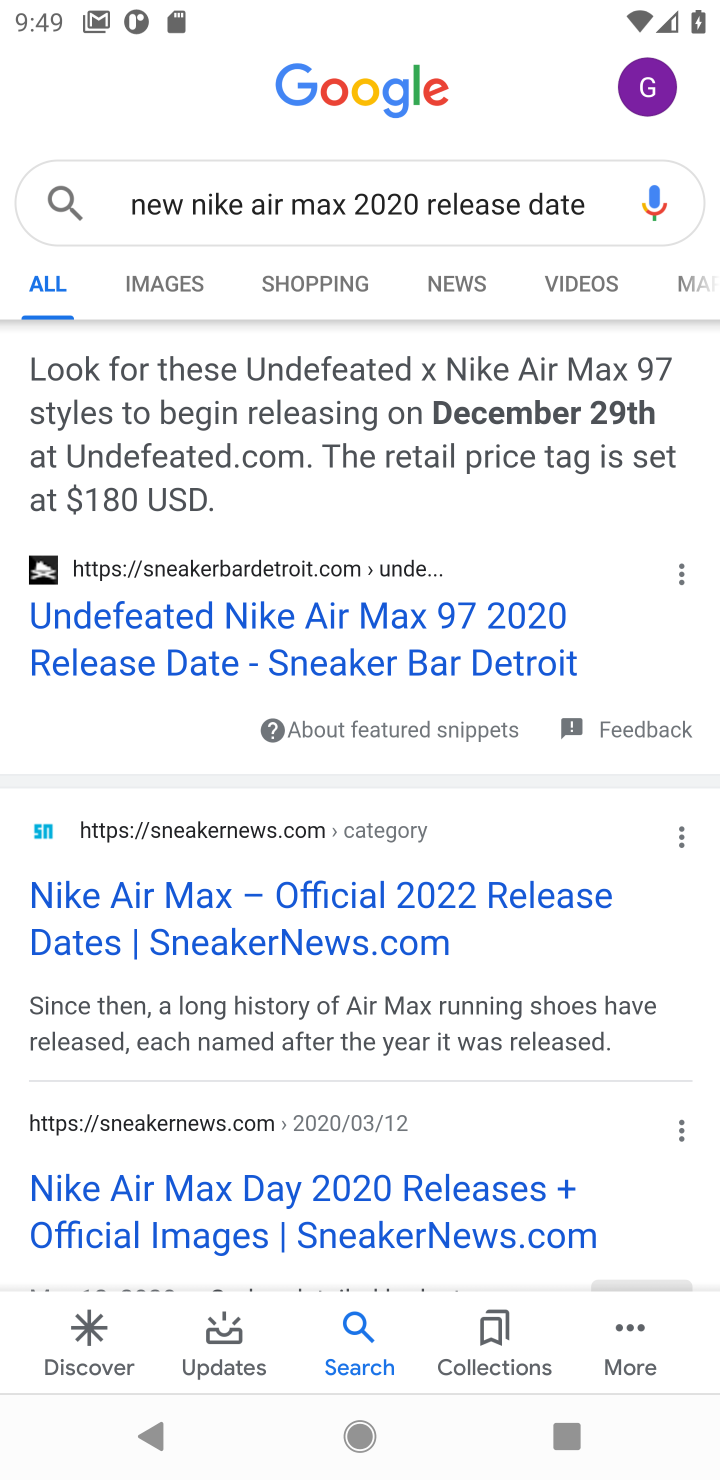
Step 30: click (340, 935)
Your task to perform on an android device: Check out the new nike air max 2020. Image 31: 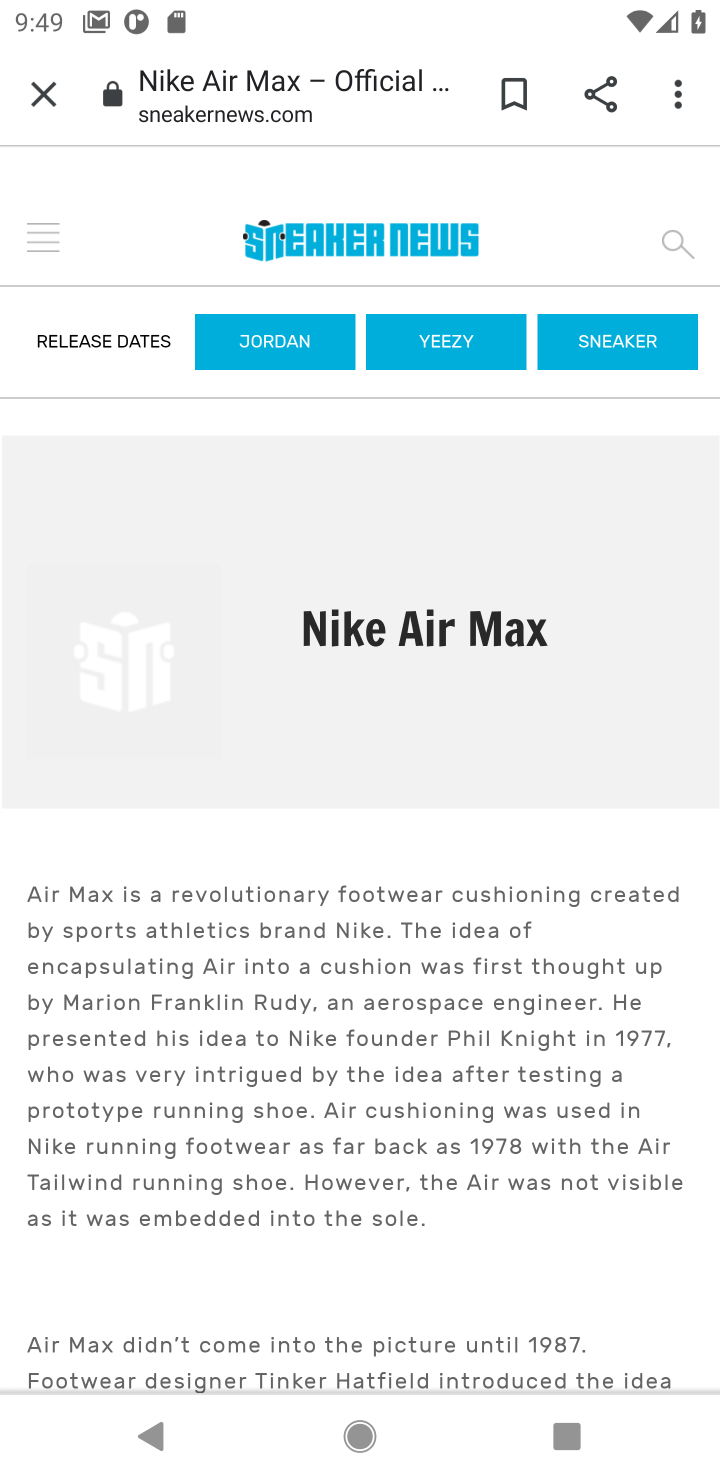
Step 31: task complete